Your task to perform on an android device: Go to notification settings Image 0: 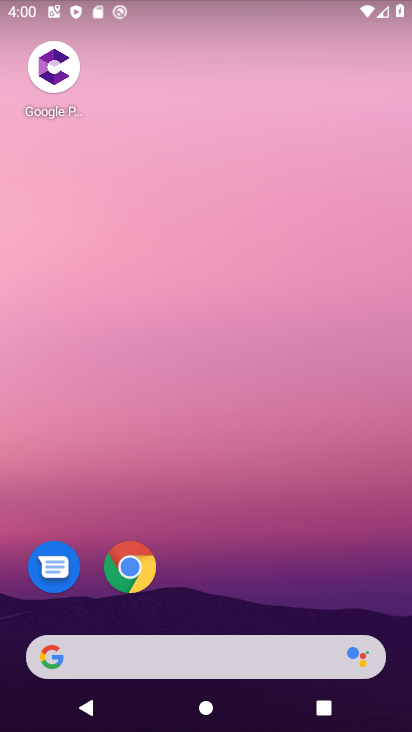
Step 0: drag from (194, 602) to (213, 70)
Your task to perform on an android device: Go to notification settings Image 1: 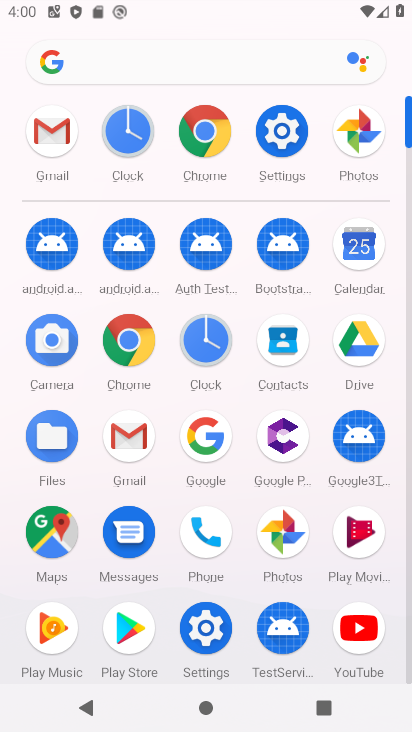
Step 1: click (205, 624)
Your task to perform on an android device: Go to notification settings Image 2: 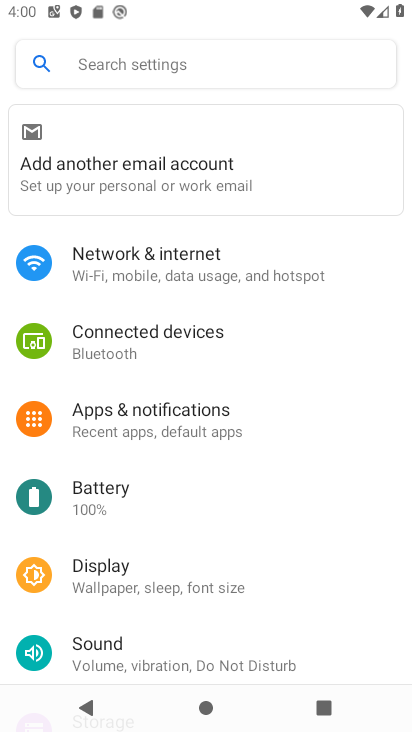
Step 2: click (123, 406)
Your task to perform on an android device: Go to notification settings Image 3: 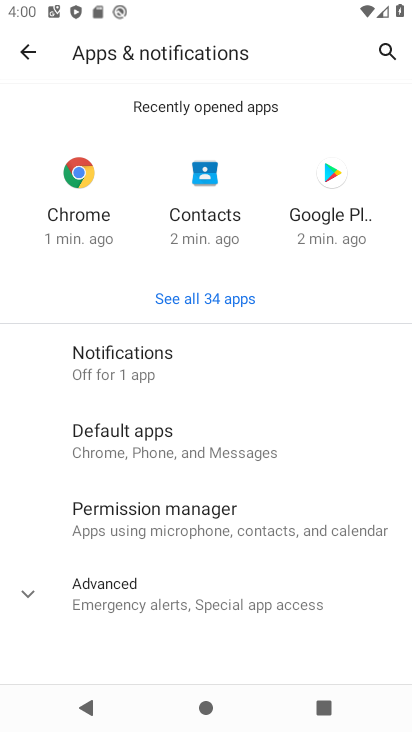
Step 3: click (123, 355)
Your task to perform on an android device: Go to notification settings Image 4: 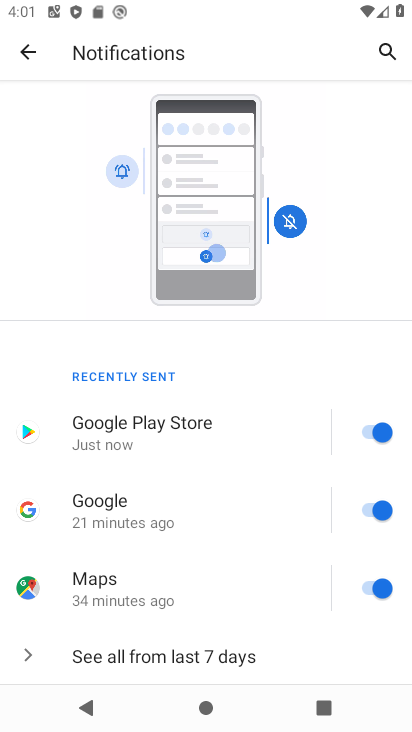
Step 4: task complete